Your task to perform on an android device: turn off notifications settings in the gmail app Image 0: 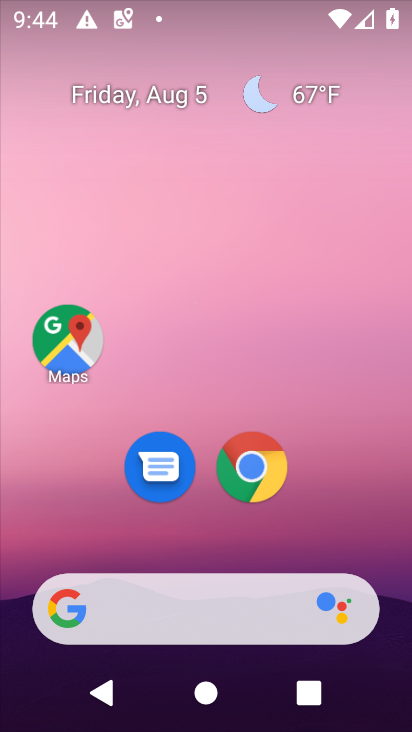
Step 0: drag from (160, 576) to (176, 162)
Your task to perform on an android device: turn off notifications settings in the gmail app Image 1: 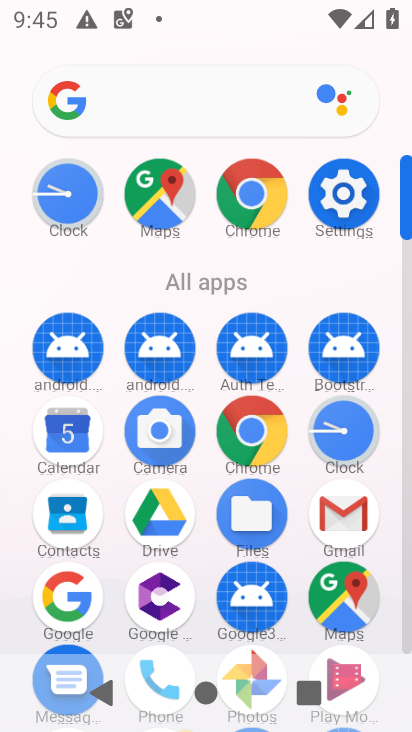
Step 1: click (337, 527)
Your task to perform on an android device: turn off notifications settings in the gmail app Image 2: 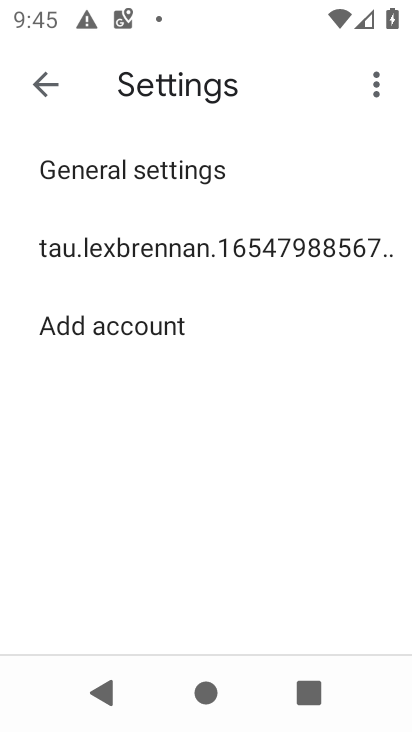
Step 2: click (166, 254)
Your task to perform on an android device: turn off notifications settings in the gmail app Image 3: 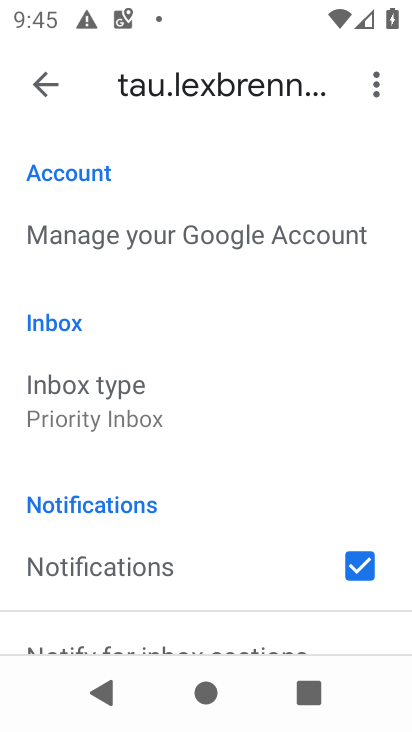
Step 3: drag from (112, 617) to (102, 330)
Your task to perform on an android device: turn off notifications settings in the gmail app Image 4: 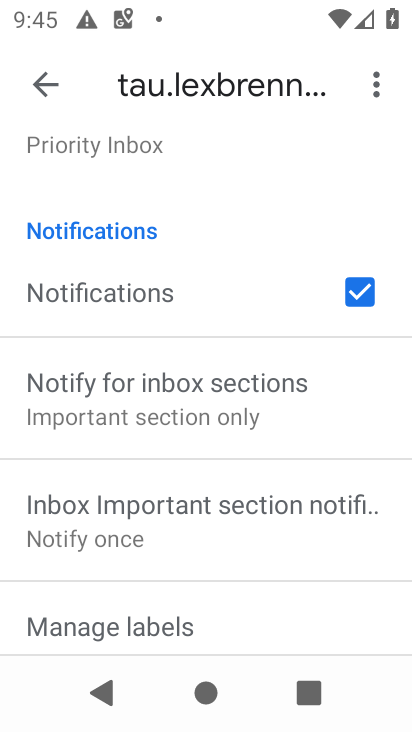
Step 4: drag from (132, 549) to (146, 261)
Your task to perform on an android device: turn off notifications settings in the gmail app Image 5: 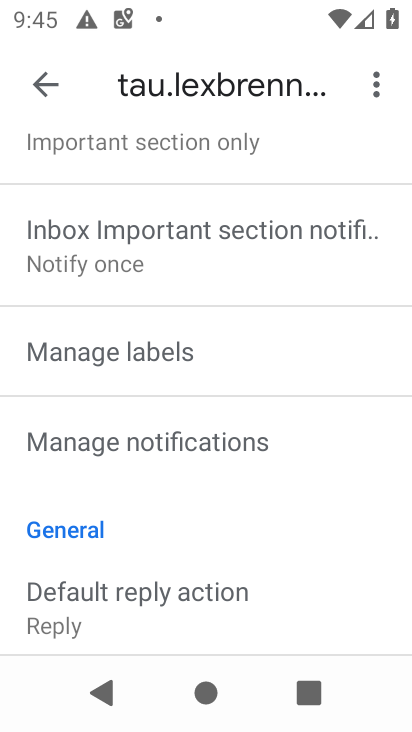
Step 5: click (161, 441)
Your task to perform on an android device: turn off notifications settings in the gmail app Image 6: 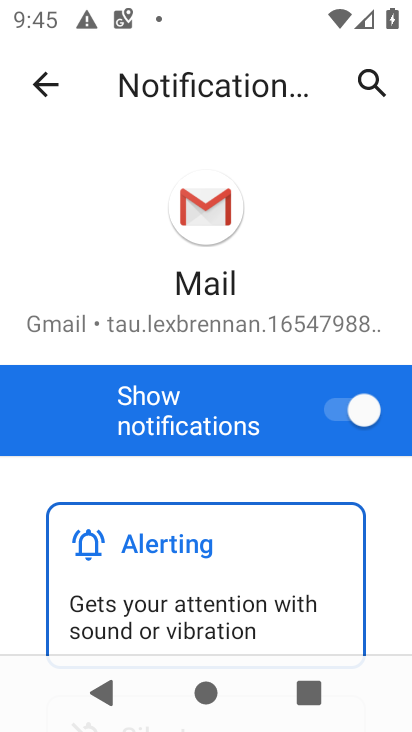
Step 6: click (331, 416)
Your task to perform on an android device: turn off notifications settings in the gmail app Image 7: 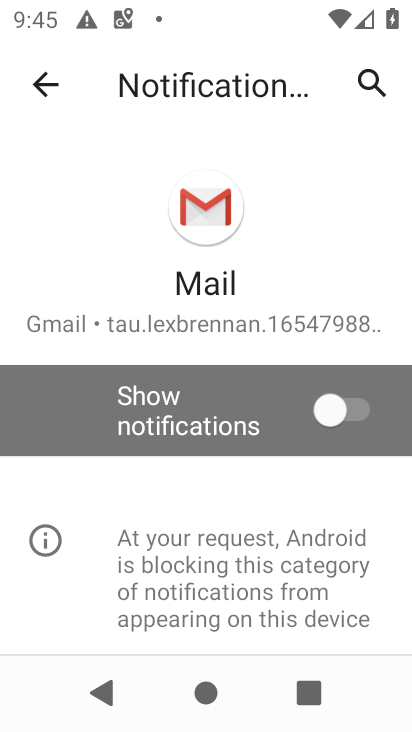
Step 7: task complete